Your task to perform on an android device: empty trash in google photos Image 0: 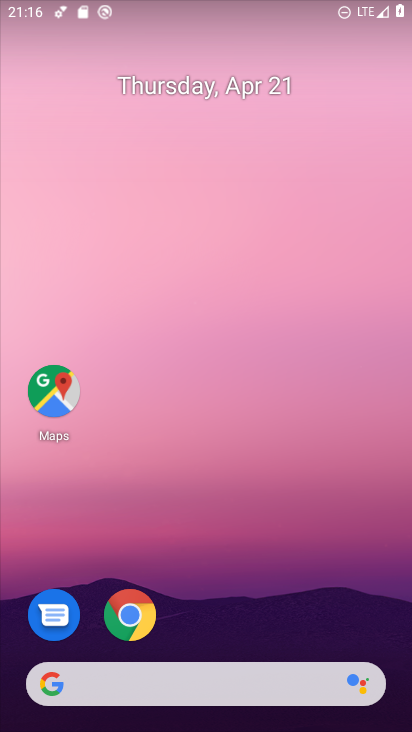
Step 0: drag from (190, 653) to (259, 220)
Your task to perform on an android device: empty trash in google photos Image 1: 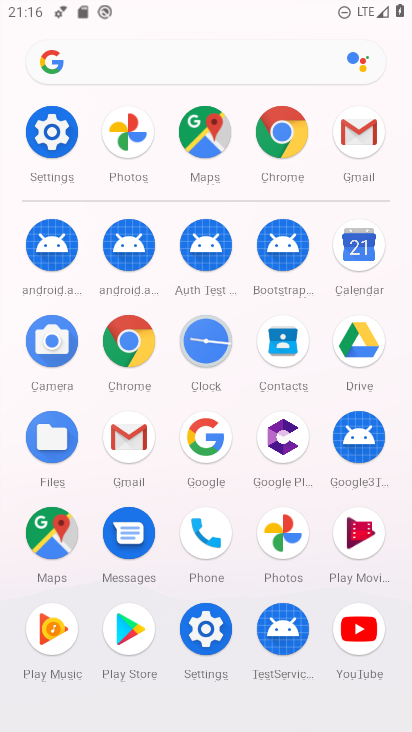
Step 1: click (258, 543)
Your task to perform on an android device: empty trash in google photos Image 2: 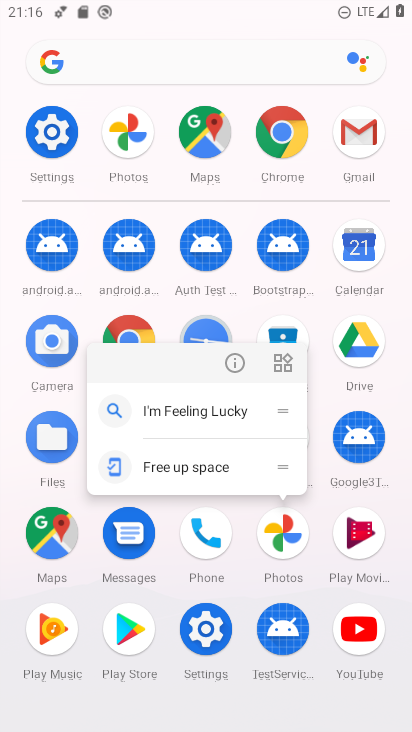
Step 2: click (236, 354)
Your task to perform on an android device: empty trash in google photos Image 3: 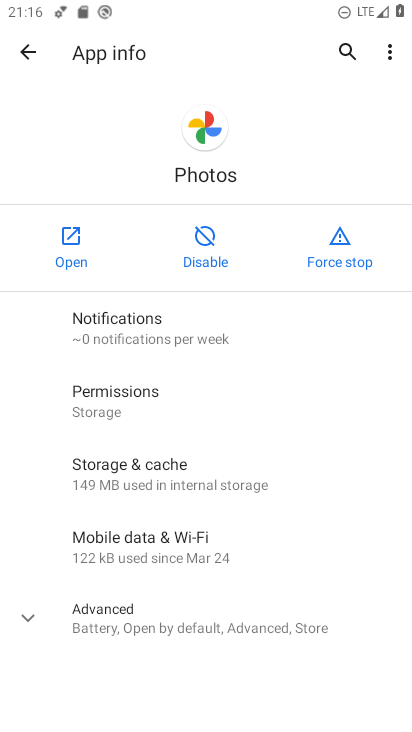
Step 3: click (53, 248)
Your task to perform on an android device: empty trash in google photos Image 4: 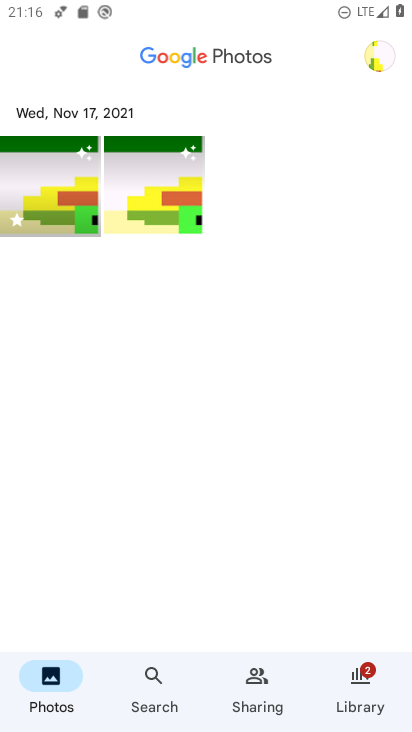
Step 4: click (360, 688)
Your task to perform on an android device: empty trash in google photos Image 5: 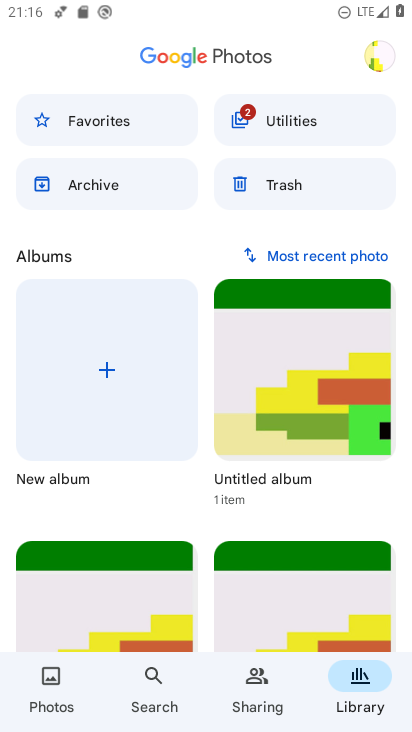
Step 5: click (302, 196)
Your task to perform on an android device: empty trash in google photos Image 6: 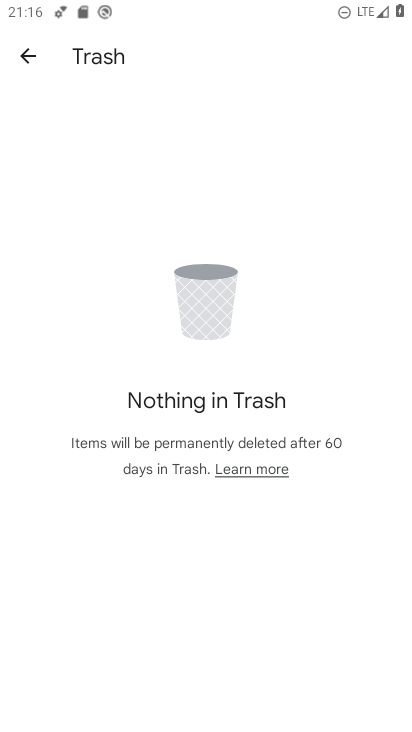
Step 6: task complete